Your task to perform on an android device: turn off priority inbox in the gmail app Image 0: 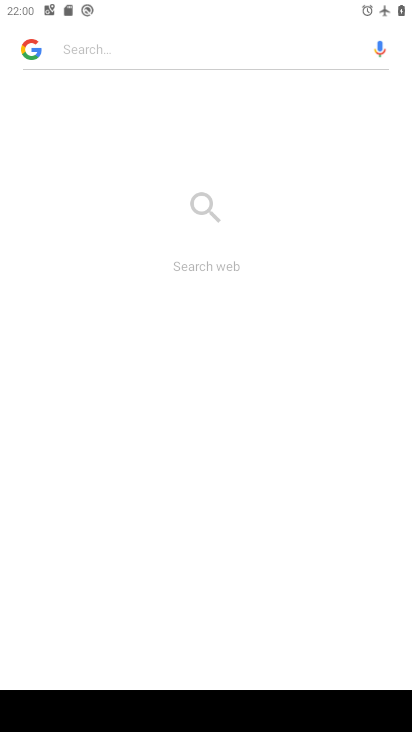
Step 0: press home button
Your task to perform on an android device: turn off priority inbox in the gmail app Image 1: 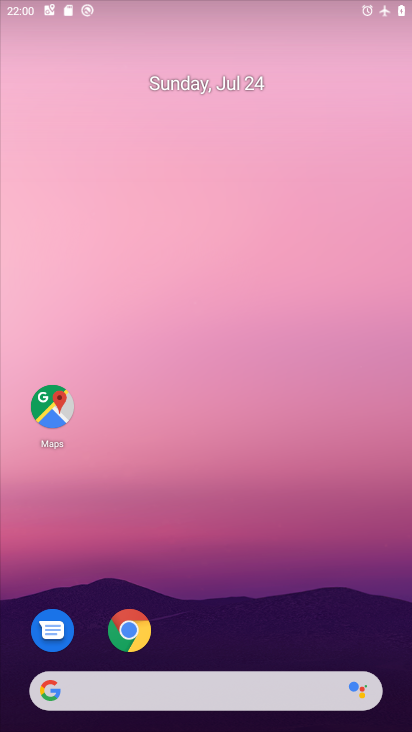
Step 1: drag from (316, 625) to (291, 100)
Your task to perform on an android device: turn off priority inbox in the gmail app Image 2: 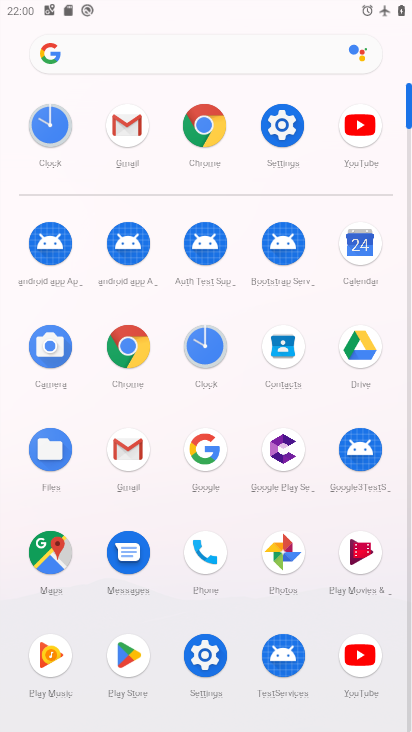
Step 2: click (124, 452)
Your task to perform on an android device: turn off priority inbox in the gmail app Image 3: 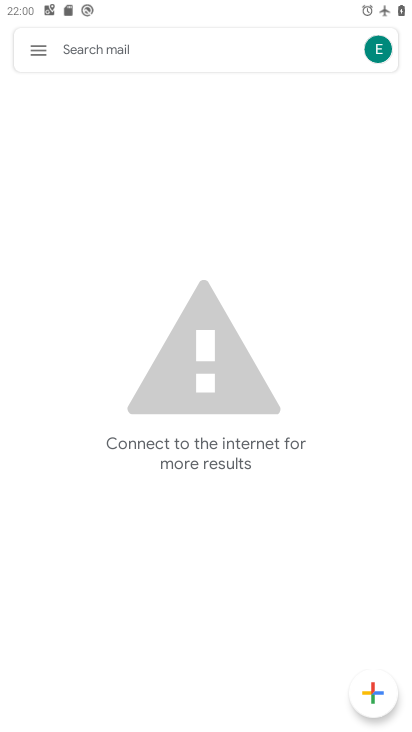
Step 3: click (44, 43)
Your task to perform on an android device: turn off priority inbox in the gmail app Image 4: 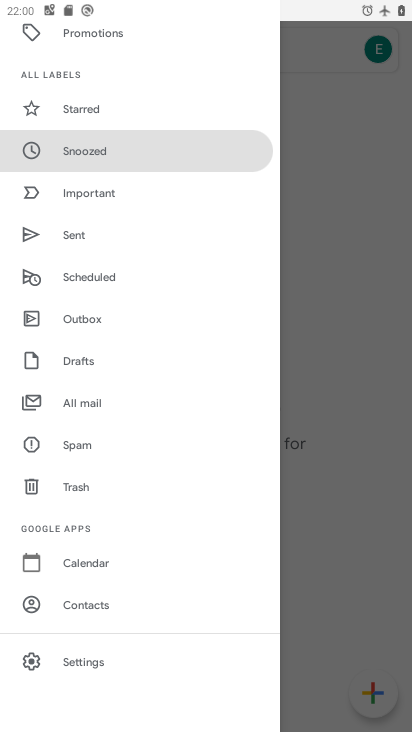
Step 4: click (79, 655)
Your task to perform on an android device: turn off priority inbox in the gmail app Image 5: 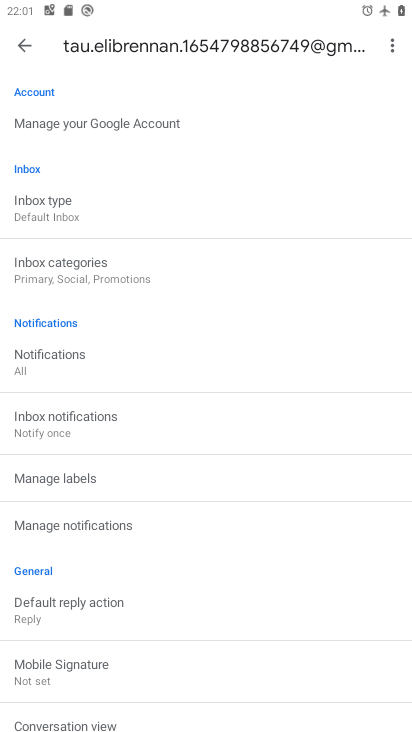
Step 5: click (61, 199)
Your task to perform on an android device: turn off priority inbox in the gmail app Image 6: 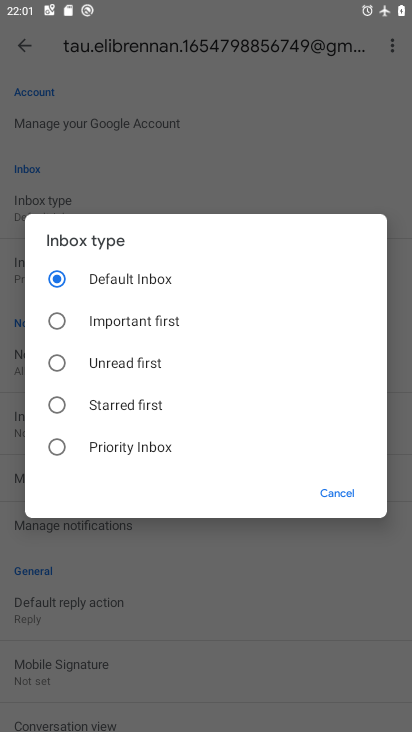
Step 6: task complete